Your task to perform on an android device: delete location history Image 0: 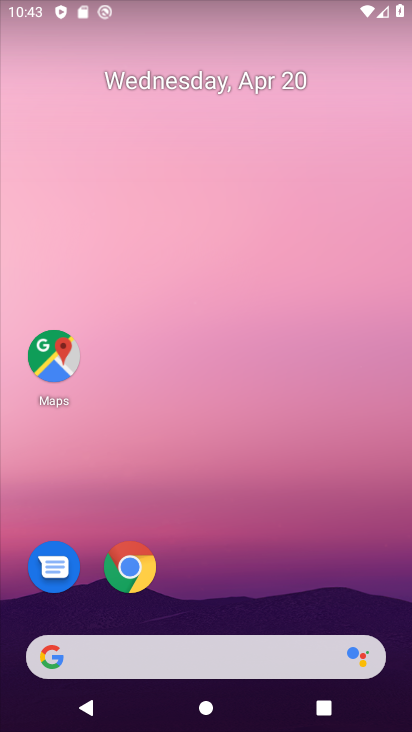
Step 0: drag from (221, 617) to (186, 88)
Your task to perform on an android device: delete location history Image 1: 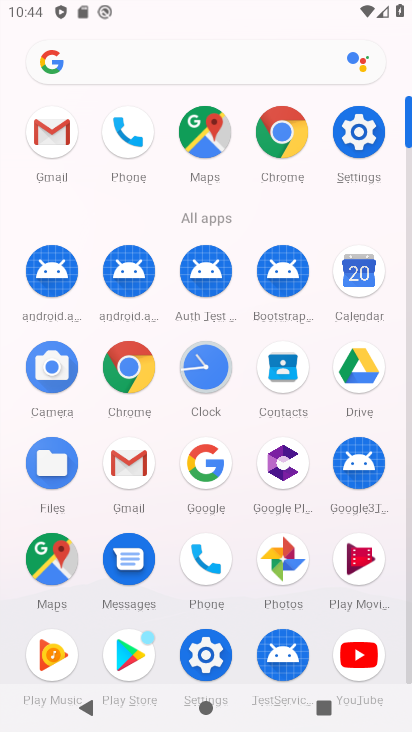
Step 1: click (57, 555)
Your task to perform on an android device: delete location history Image 2: 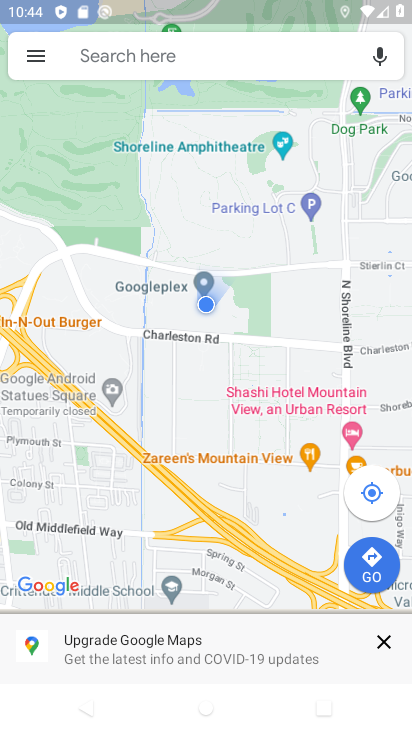
Step 2: drag from (33, 63) to (49, 253)
Your task to perform on an android device: delete location history Image 3: 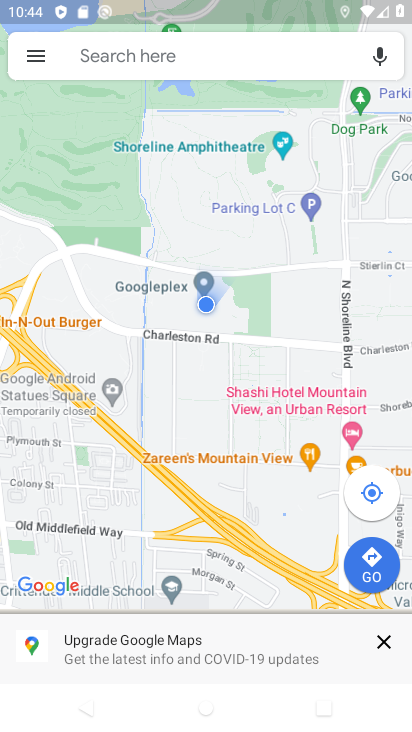
Step 3: click (32, 58)
Your task to perform on an android device: delete location history Image 4: 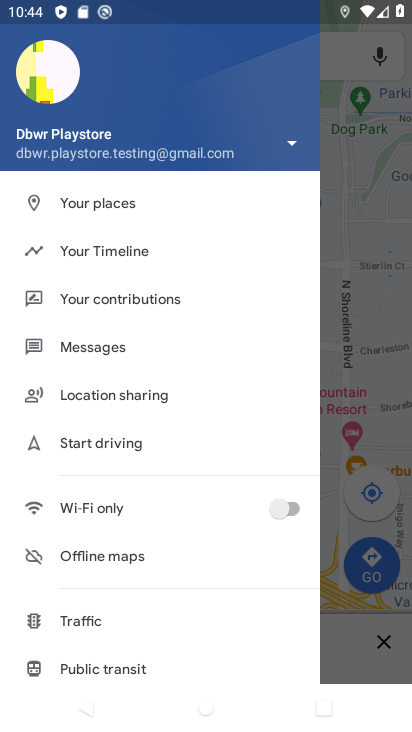
Step 4: drag from (138, 661) to (143, 206)
Your task to perform on an android device: delete location history Image 5: 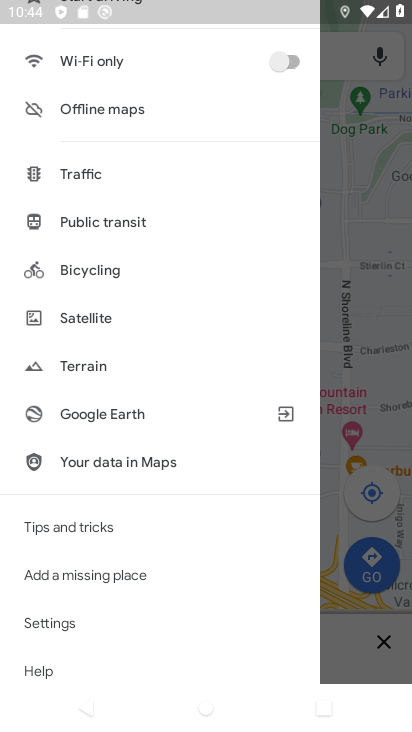
Step 5: click (92, 613)
Your task to perform on an android device: delete location history Image 6: 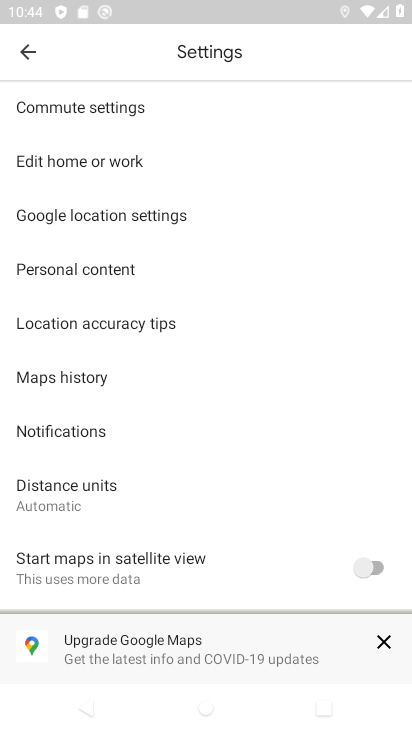
Step 6: click (22, 39)
Your task to perform on an android device: delete location history Image 7: 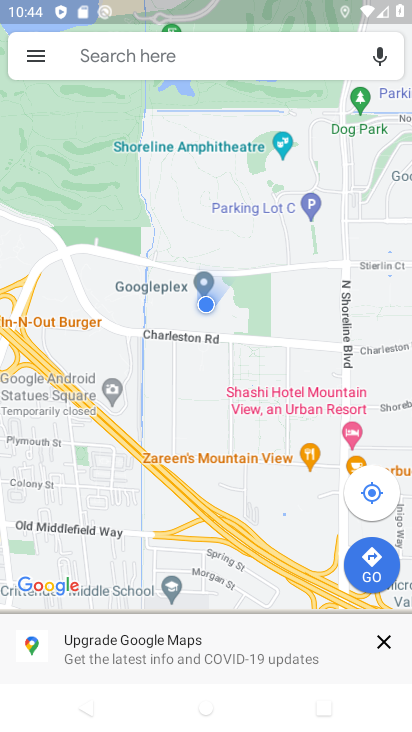
Step 7: click (32, 50)
Your task to perform on an android device: delete location history Image 8: 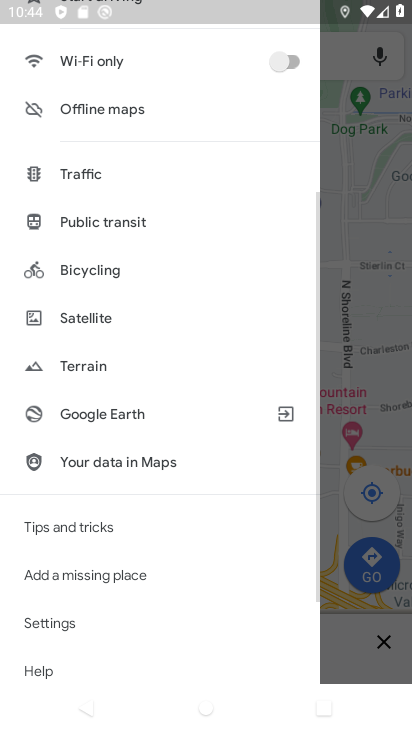
Step 8: drag from (114, 174) to (109, 586)
Your task to perform on an android device: delete location history Image 9: 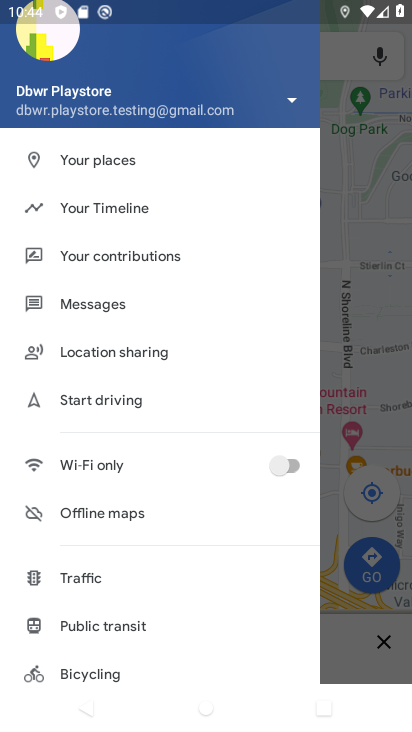
Step 9: click (115, 214)
Your task to perform on an android device: delete location history Image 10: 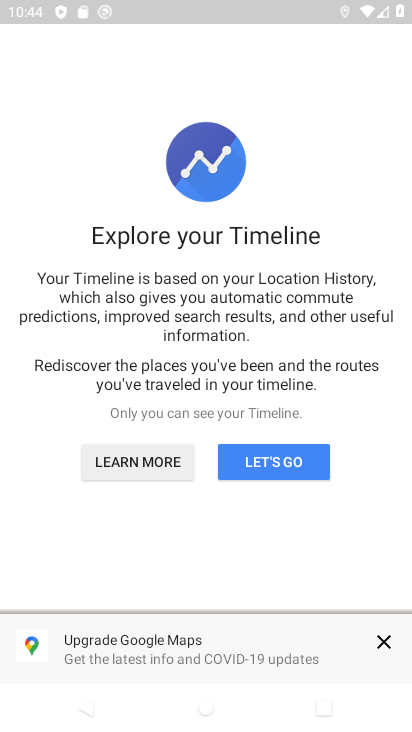
Step 10: click (270, 454)
Your task to perform on an android device: delete location history Image 11: 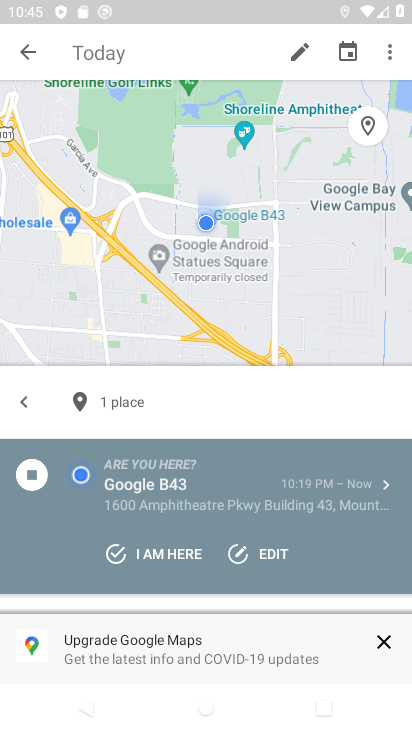
Step 11: click (393, 53)
Your task to perform on an android device: delete location history Image 12: 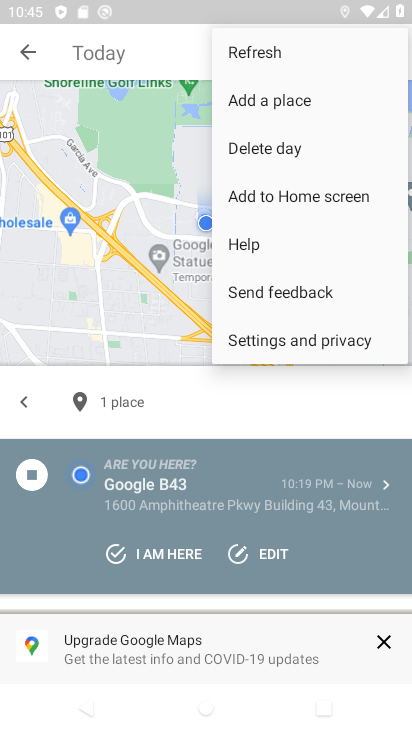
Step 12: click (279, 335)
Your task to perform on an android device: delete location history Image 13: 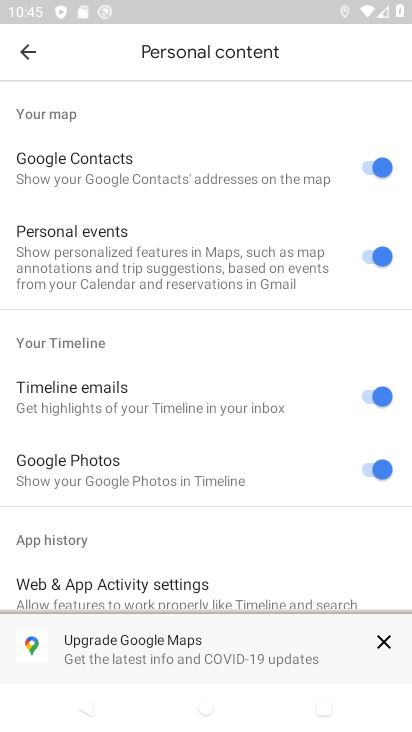
Step 13: drag from (206, 536) to (223, 99)
Your task to perform on an android device: delete location history Image 14: 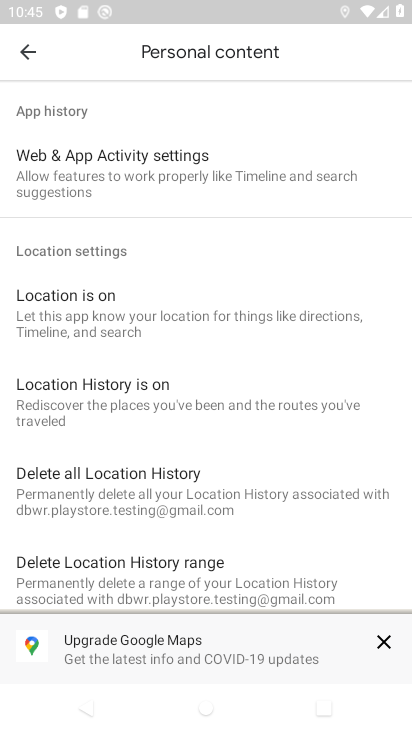
Step 14: click (182, 471)
Your task to perform on an android device: delete location history Image 15: 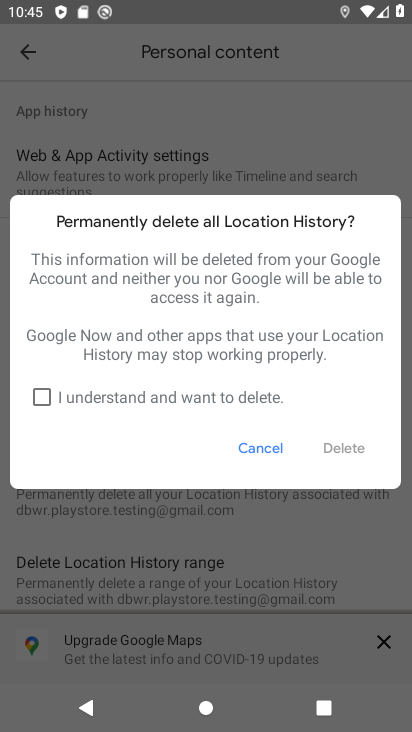
Step 15: click (35, 391)
Your task to perform on an android device: delete location history Image 16: 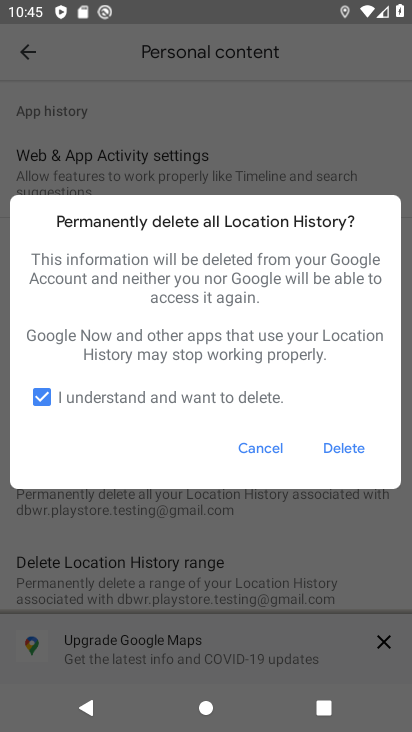
Step 16: click (335, 444)
Your task to perform on an android device: delete location history Image 17: 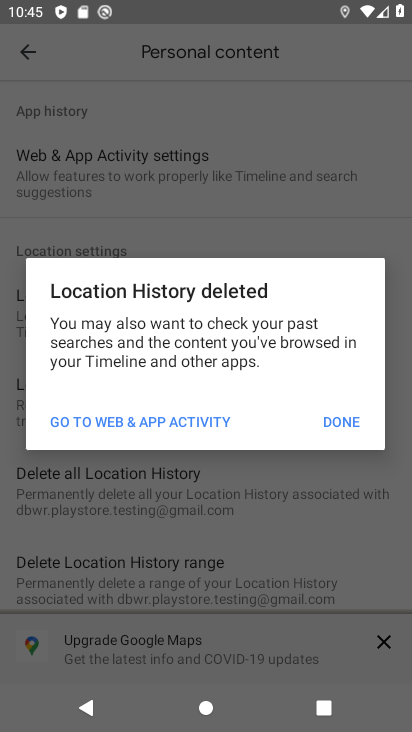
Step 17: click (350, 420)
Your task to perform on an android device: delete location history Image 18: 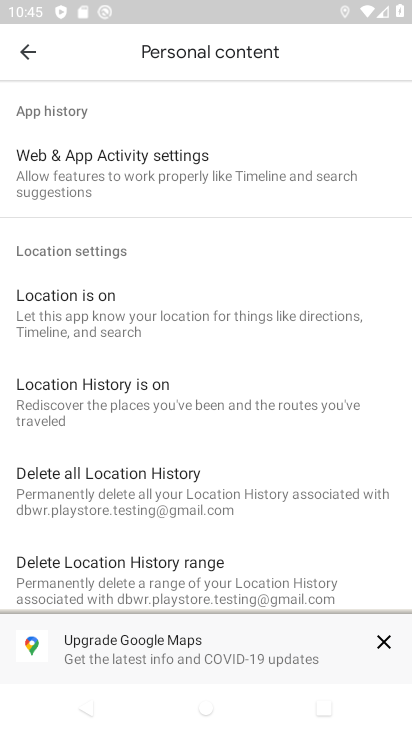
Step 18: task complete